Your task to perform on an android device: toggle notification dots Image 0: 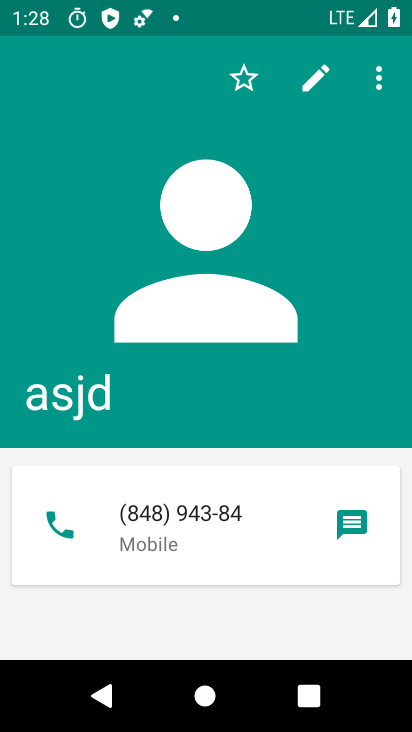
Step 0: press home button
Your task to perform on an android device: toggle notification dots Image 1: 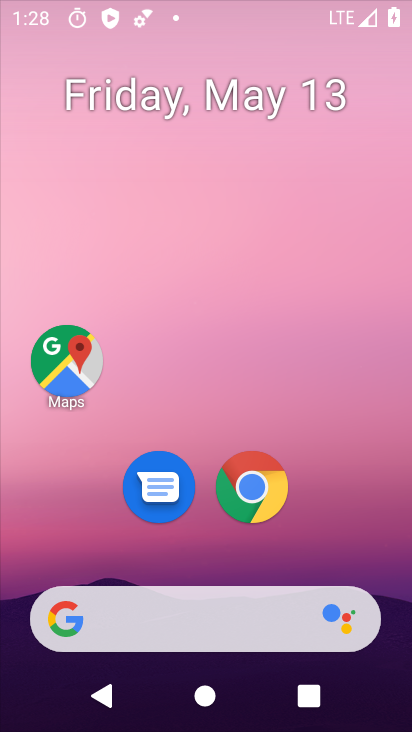
Step 1: drag from (376, 543) to (377, 137)
Your task to perform on an android device: toggle notification dots Image 2: 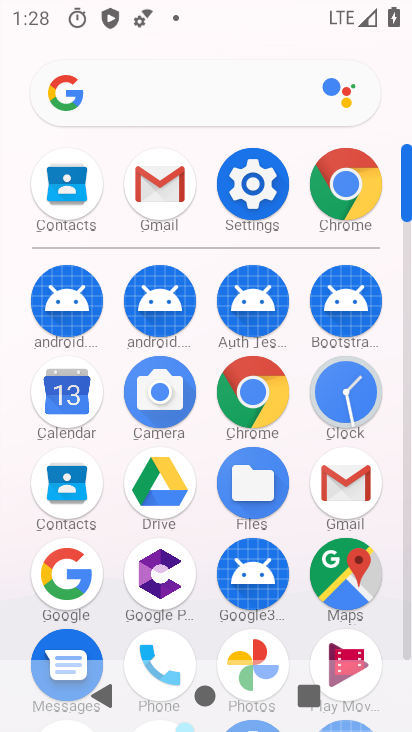
Step 2: click (277, 179)
Your task to perform on an android device: toggle notification dots Image 3: 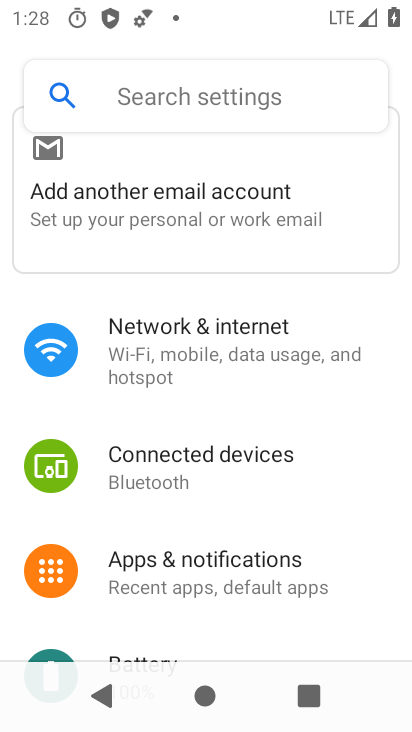
Step 3: drag from (241, 628) to (265, 321)
Your task to perform on an android device: toggle notification dots Image 4: 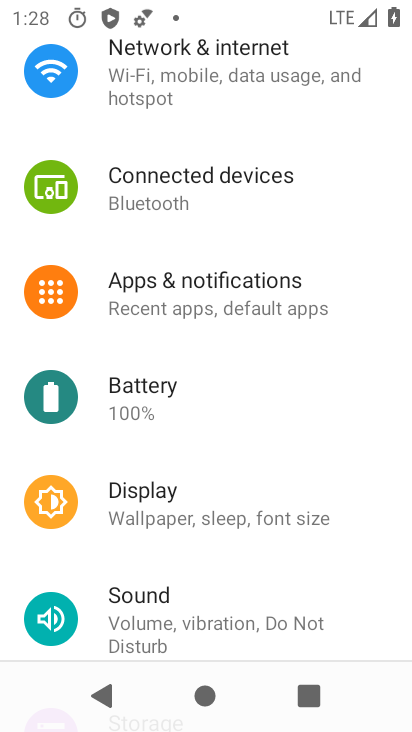
Step 4: drag from (249, 584) to (263, 327)
Your task to perform on an android device: toggle notification dots Image 5: 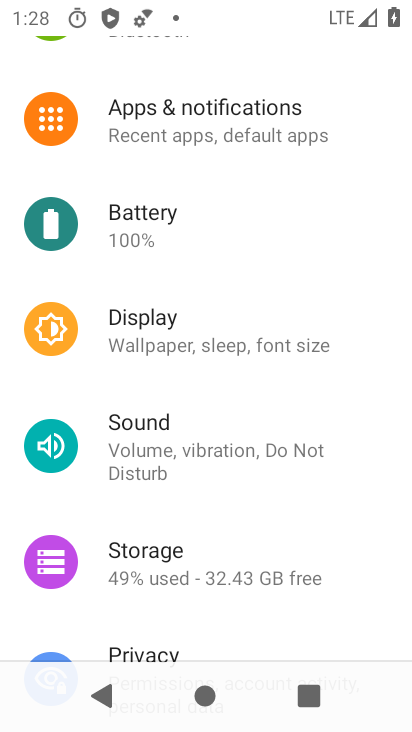
Step 5: drag from (263, 630) to (276, 343)
Your task to perform on an android device: toggle notification dots Image 6: 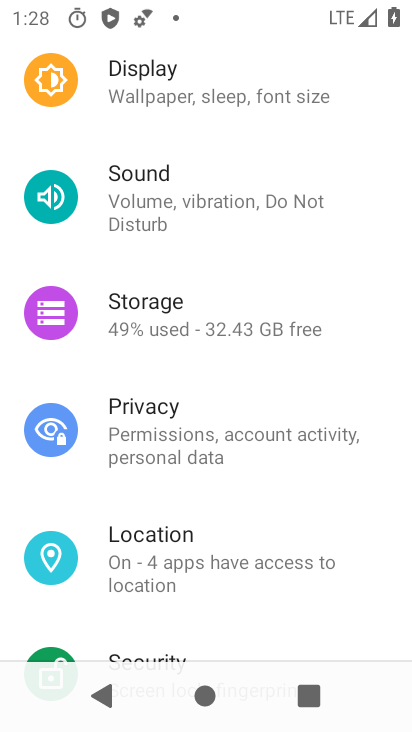
Step 6: drag from (250, 138) to (251, 532)
Your task to perform on an android device: toggle notification dots Image 7: 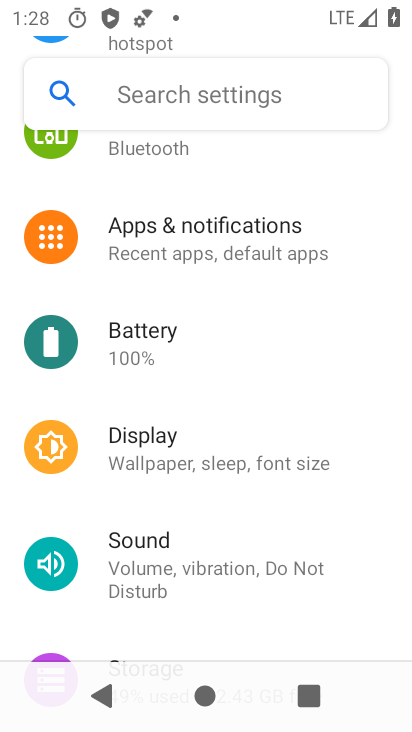
Step 7: click (207, 229)
Your task to perform on an android device: toggle notification dots Image 8: 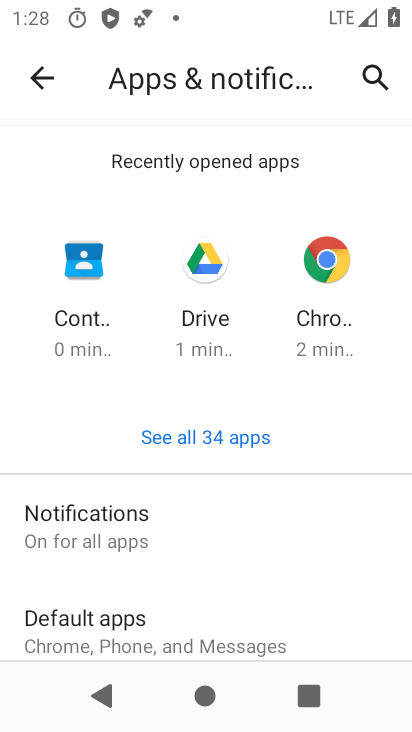
Step 8: drag from (160, 585) to (165, 333)
Your task to perform on an android device: toggle notification dots Image 9: 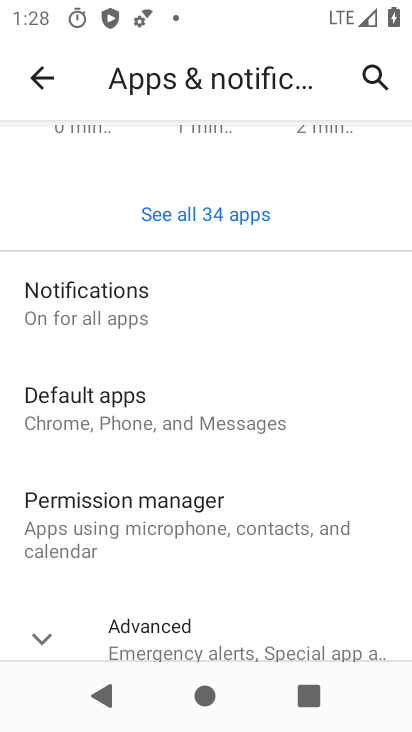
Step 9: click (95, 290)
Your task to perform on an android device: toggle notification dots Image 10: 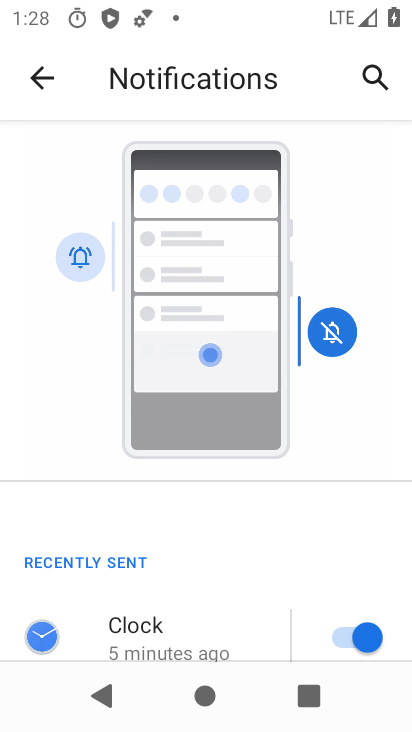
Step 10: drag from (119, 601) to (178, 203)
Your task to perform on an android device: toggle notification dots Image 11: 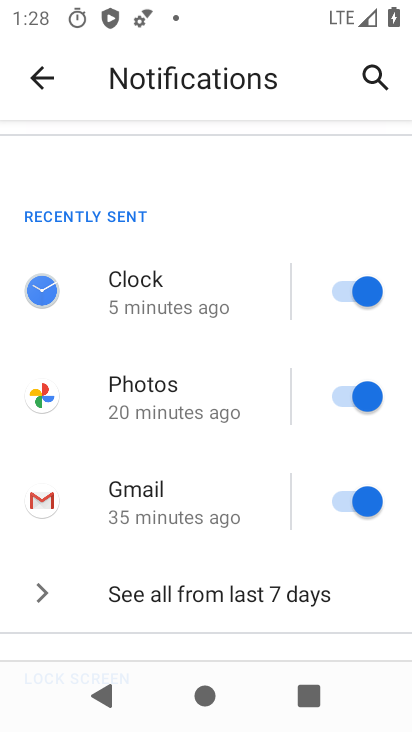
Step 11: drag from (167, 539) to (163, 252)
Your task to perform on an android device: toggle notification dots Image 12: 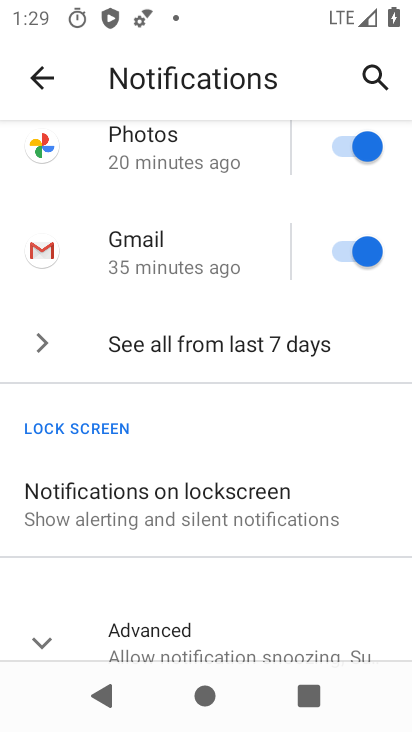
Step 12: drag from (201, 574) to (183, 271)
Your task to perform on an android device: toggle notification dots Image 13: 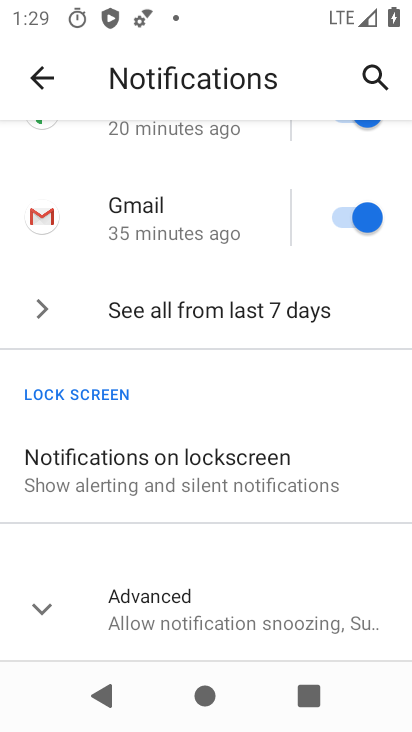
Step 13: drag from (59, 570) to (128, 392)
Your task to perform on an android device: toggle notification dots Image 14: 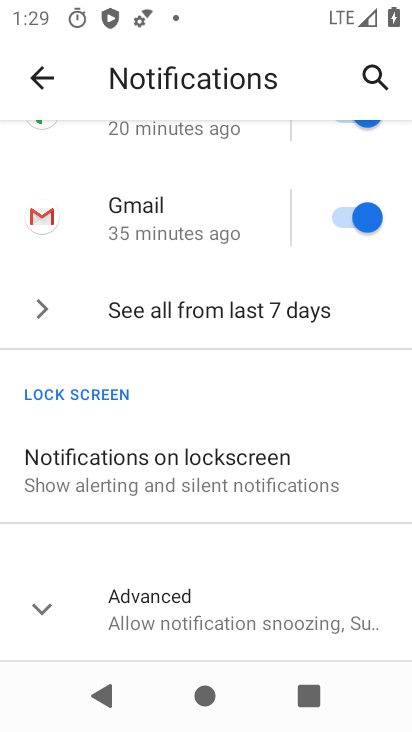
Step 14: click (97, 605)
Your task to perform on an android device: toggle notification dots Image 15: 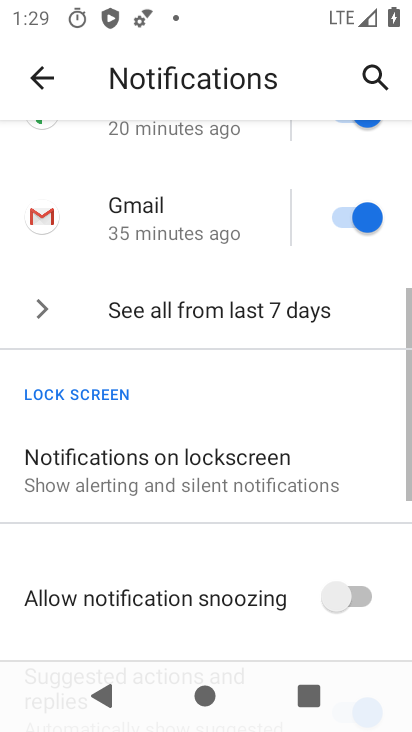
Step 15: task complete